Your task to perform on an android device: open a bookmark in the chrome app Image 0: 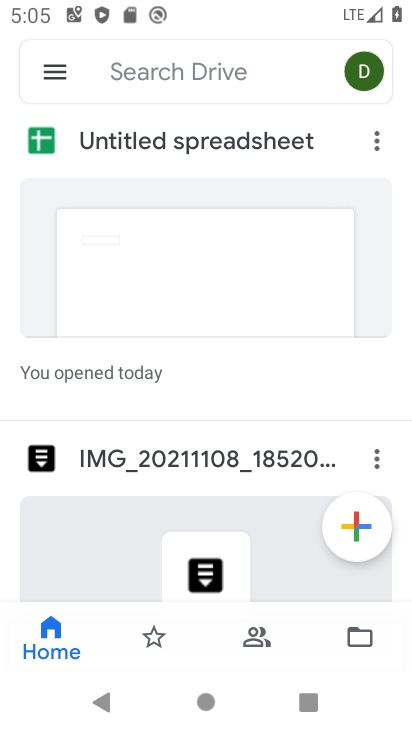
Step 0: press home button
Your task to perform on an android device: open a bookmark in the chrome app Image 1: 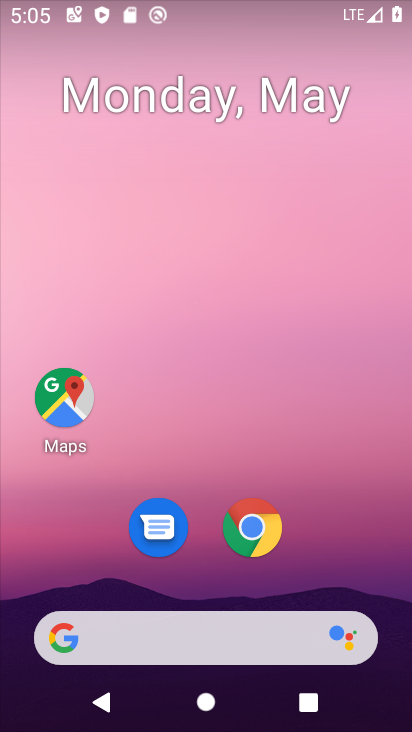
Step 1: drag from (399, 677) to (399, 227)
Your task to perform on an android device: open a bookmark in the chrome app Image 2: 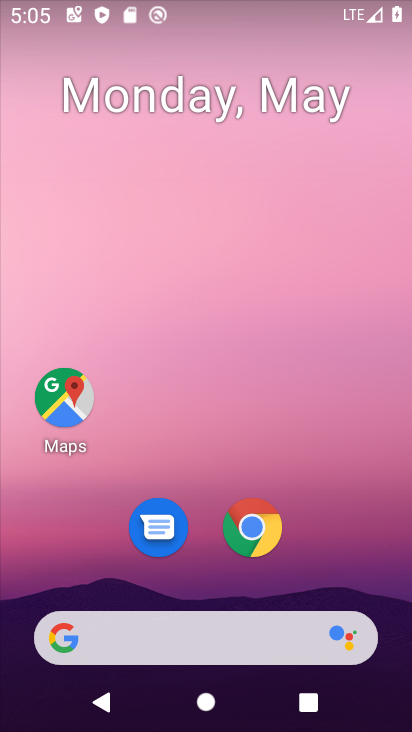
Step 2: drag from (402, 704) to (383, 255)
Your task to perform on an android device: open a bookmark in the chrome app Image 3: 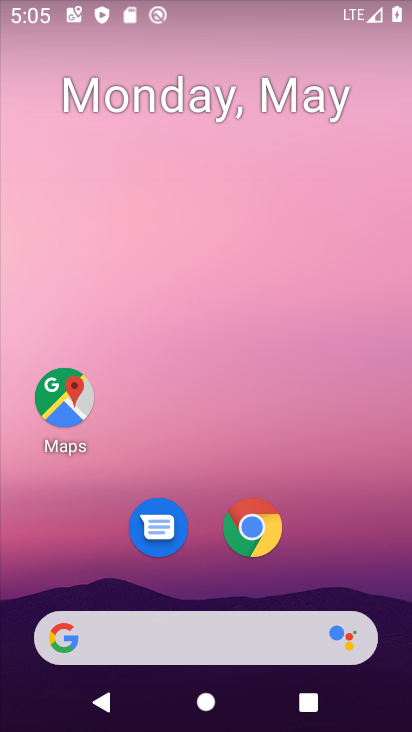
Step 3: drag from (390, 679) to (357, 127)
Your task to perform on an android device: open a bookmark in the chrome app Image 4: 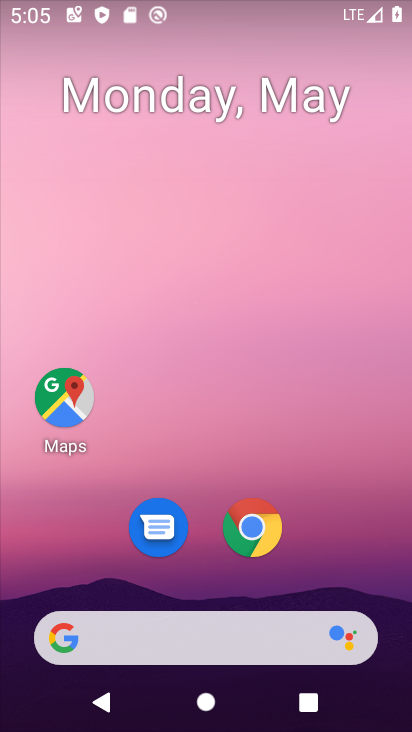
Step 4: drag from (401, 710) to (383, 200)
Your task to perform on an android device: open a bookmark in the chrome app Image 5: 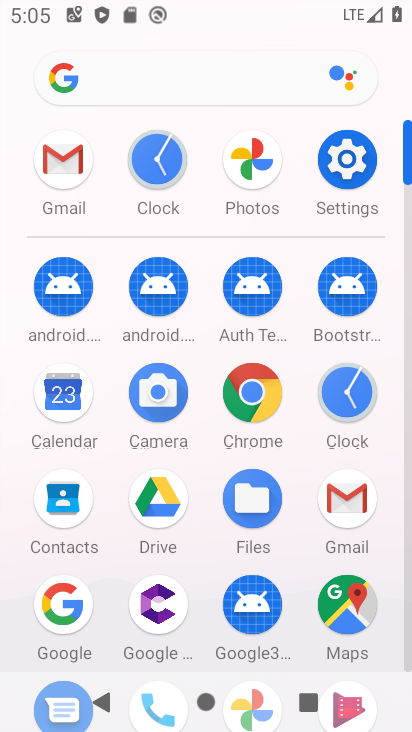
Step 5: click (257, 400)
Your task to perform on an android device: open a bookmark in the chrome app Image 6: 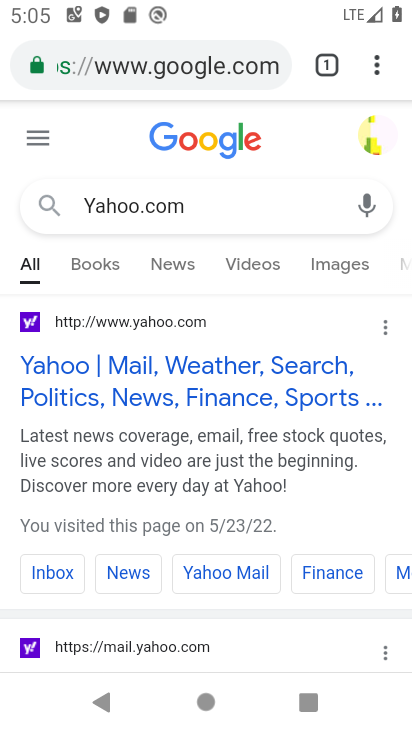
Step 6: click (376, 68)
Your task to perform on an android device: open a bookmark in the chrome app Image 7: 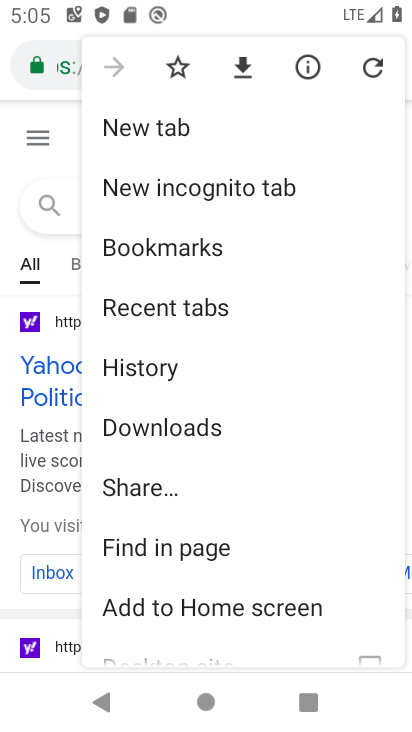
Step 7: click (152, 247)
Your task to perform on an android device: open a bookmark in the chrome app Image 8: 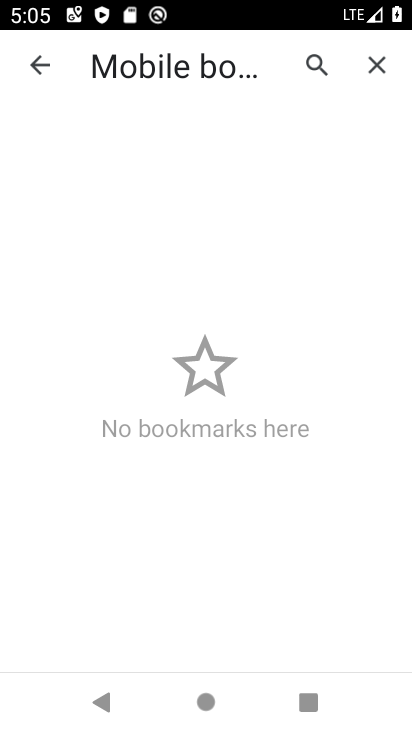
Step 8: task complete